Your task to perform on an android device: Open calendar and show me the second week of next month Image 0: 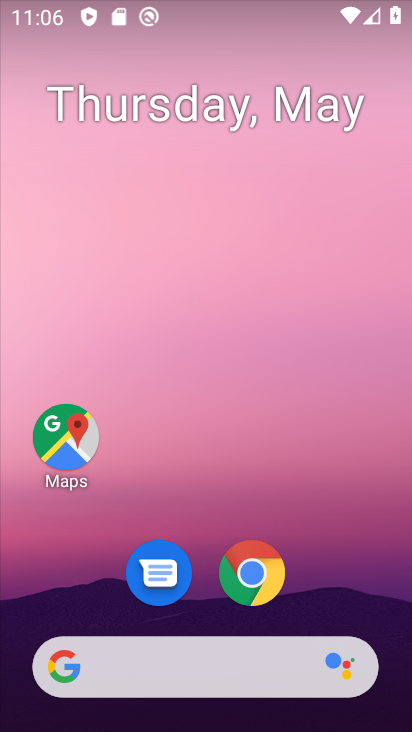
Step 0: drag from (341, 561) to (279, 119)
Your task to perform on an android device: Open calendar and show me the second week of next month Image 1: 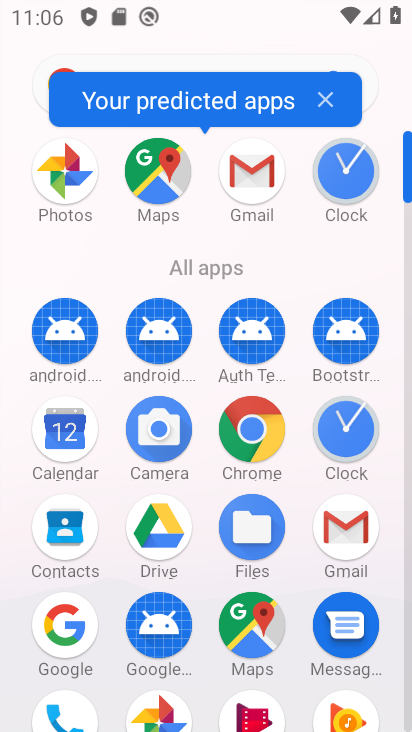
Step 1: click (59, 454)
Your task to perform on an android device: Open calendar and show me the second week of next month Image 2: 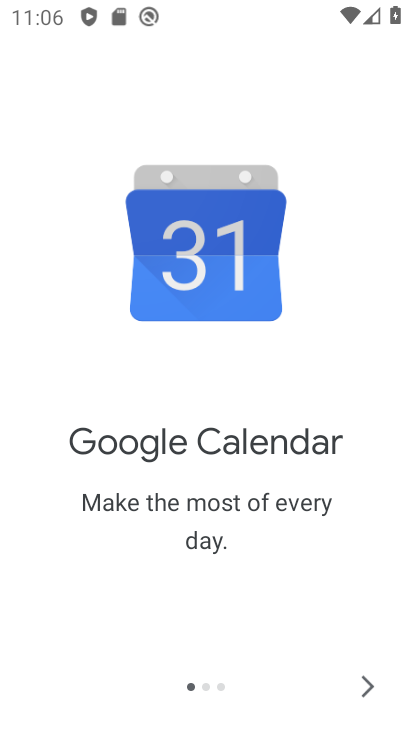
Step 2: click (360, 672)
Your task to perform on an android device: Open calendar and show me the second week of next month Image 3: 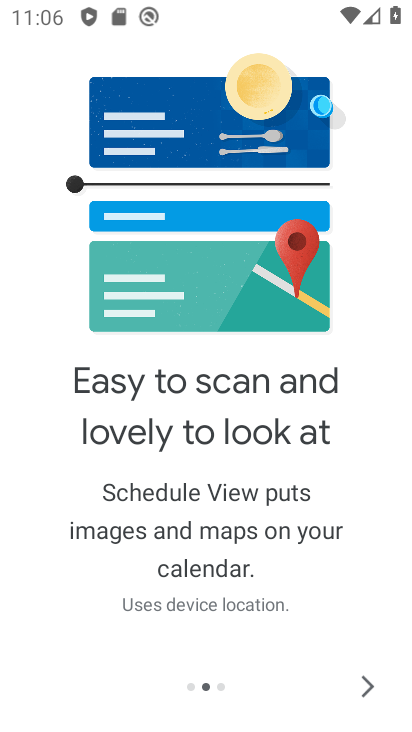
Step 3: click (360, 672)
Your task to perform on an android device: Open calendar and show me the second week of next month Image 4: 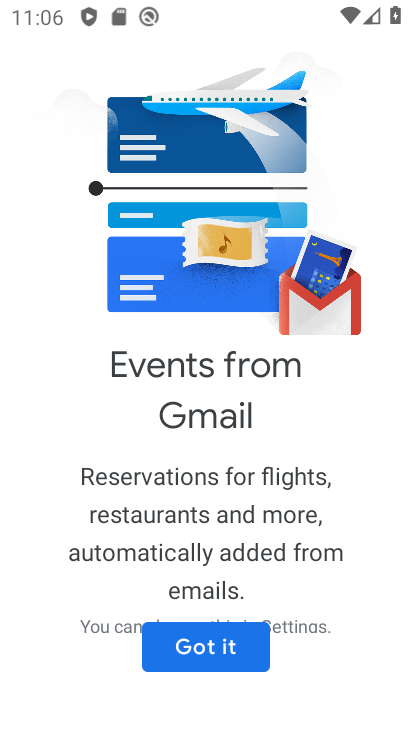
Step 4: click (217, 641)
Your task to perform on an android device: Open calendar and show me the second week of next month Image 5: 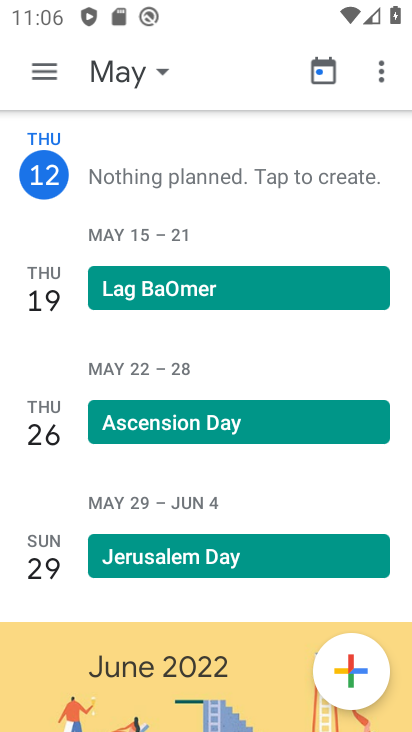
Step 5: click (155, 77)
Your task to perform on an android device: Open calendar and show me the second week of next month Image 6: 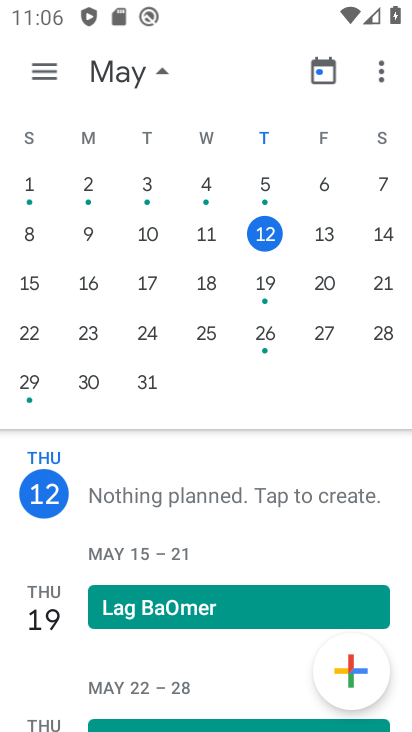
Step 6: drag from (324, 316) to (17, 331)
Your task to perform on an android device: Open calendar and show me the second week of next month Image 7: 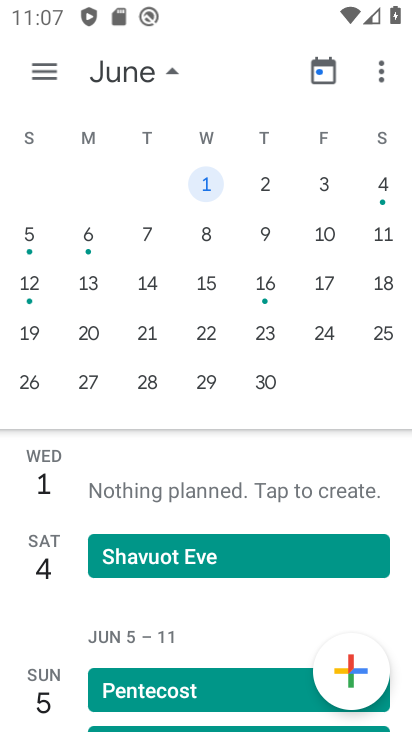
Step 7: click (85, 277)
Your task to perform on an android device: Open calendar and show me the second week of next month Image 8: 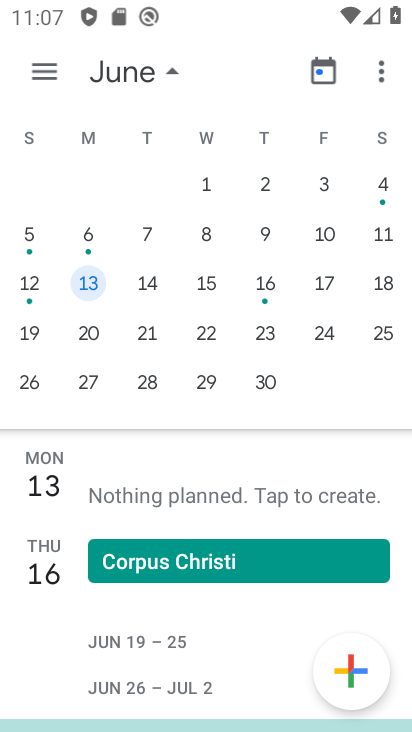
Step 8: click (44, 65)
Your task to perform on an android device: Open calendar and show me the second week of next month Image 9: 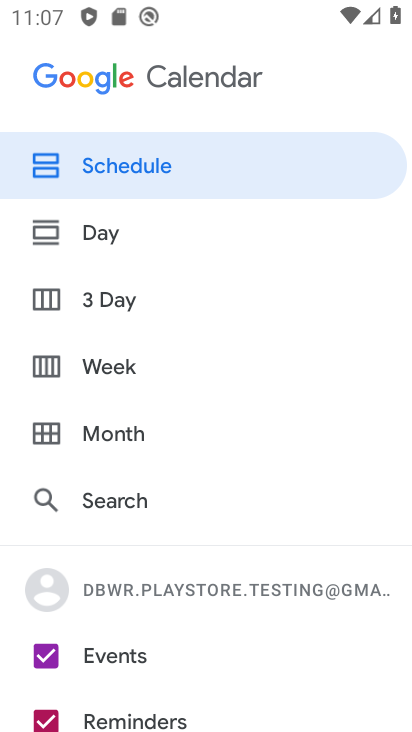
Step 9: click (160, 353)
Your task to perform on an android device: Open calendar and show me the second week of next month Image 10: 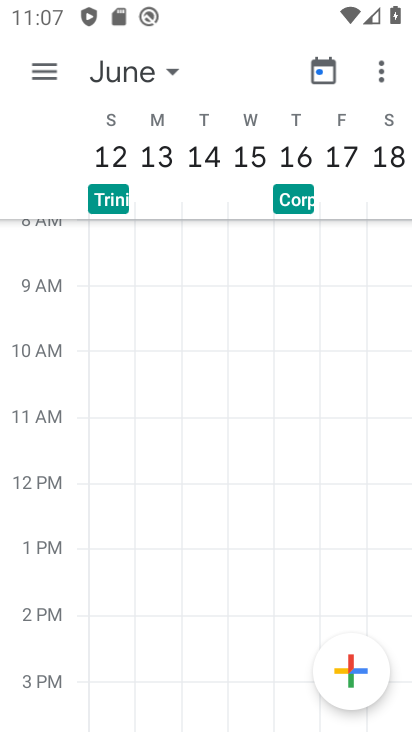
Step 10: task complete